Your task to perform on an android device: change notifications settings Image 0: 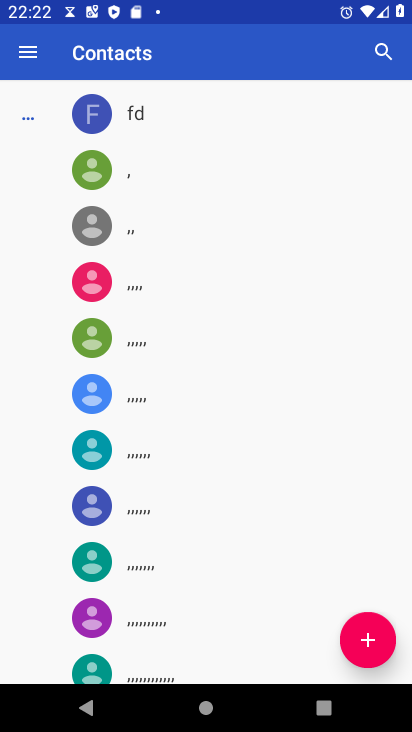
Step 0: press home button
Your task to perform on an android device: change notifications settings Image 1: 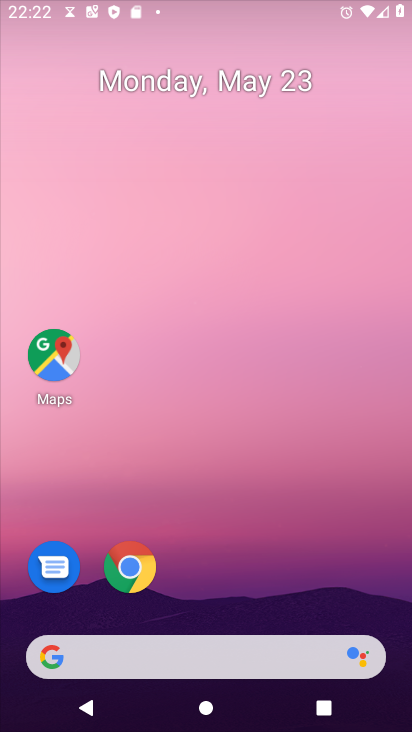
Step 1: drag from (237, 594) to (191, 260)
Your task to perform on an android device: change notifications settings Image 2: 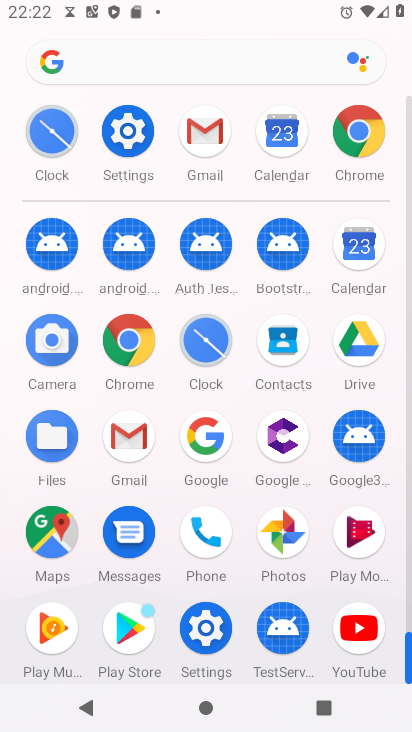
Step 2: click (204, 614)
Your task to perform on an android device: change notifications settings Image 3: 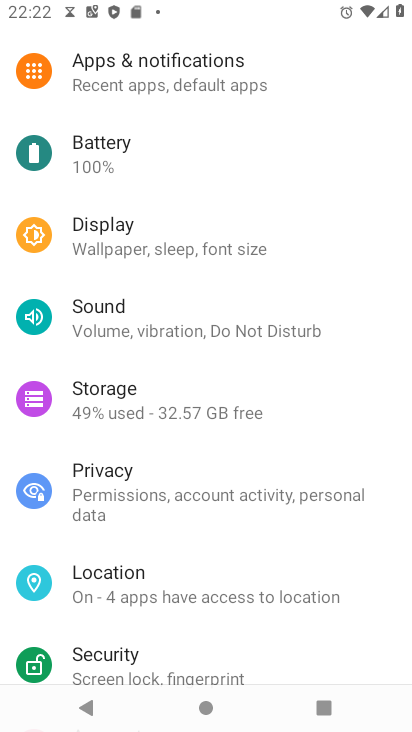
Step 3: drag from (213, 136) to (227, 639)
Your task to perform on an android device: change notifications settings Image 4: 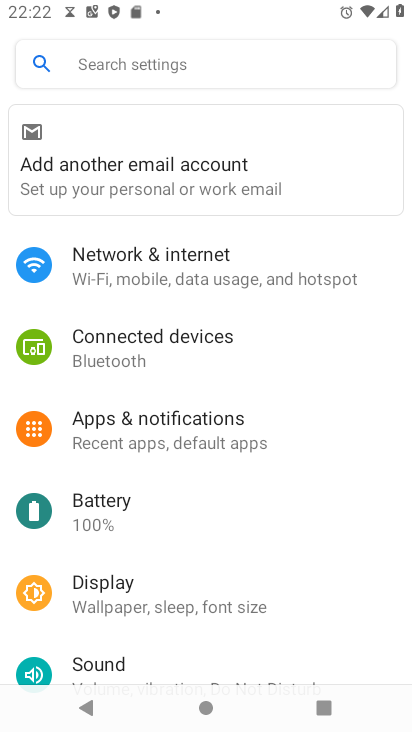
Step 4: click (186, 436)
Your task to perform on an android device: change notifications settings Image 5: 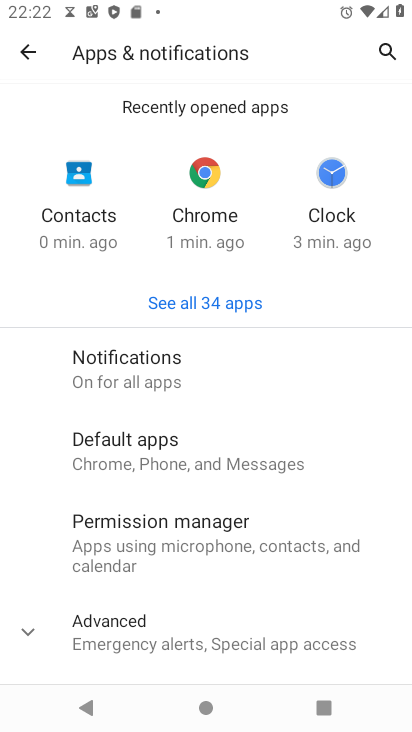
Step 5: click (162, 383)
Your task to perform on an android device: change notifications settings Image 6: 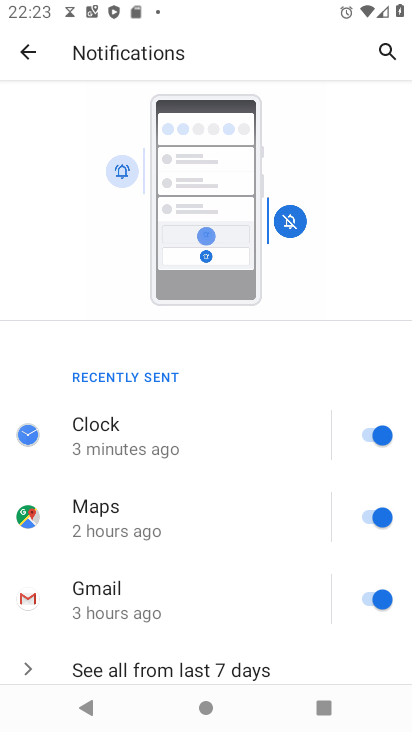
Step 6: task complete